Your task to perform on an android device: open the mobile data screen to see how much data has been used Image 0: 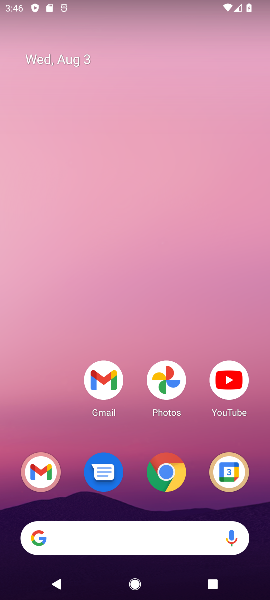
Step 0: drag from (193, 500) to (102, 50)
Your task to perform on an android device: open the mobile data screen to see how much data has been used Image 1: 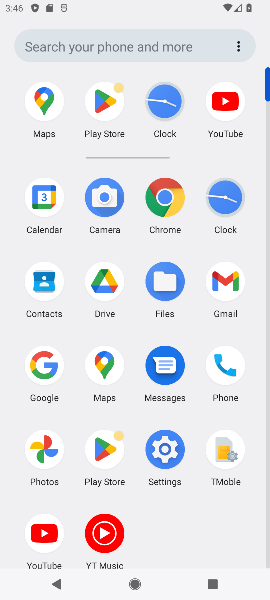
Step 1: click (168, 434)
Your task to perform on an android device: open the mobile data screen to see how much data has been used Image 2: 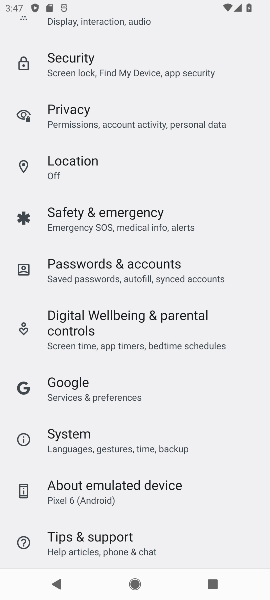
Step 2: task complete